Your task to perform on an android device: Open Google Chrome Image 0: 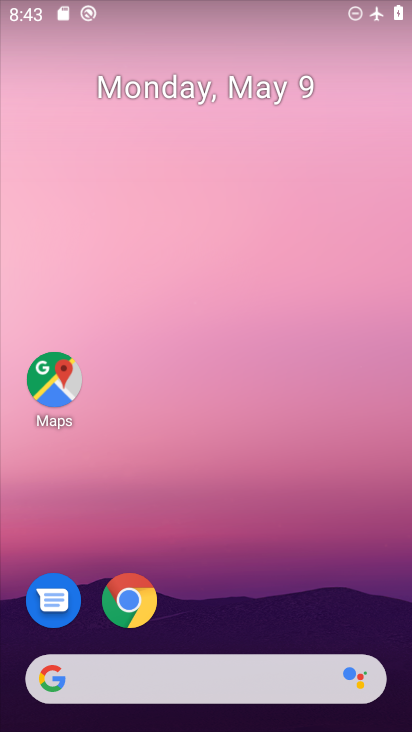
Step 0: drag from (235, 597) to (257, 6)
Your task to perform on an android device: Open Google Chrome Image 1: 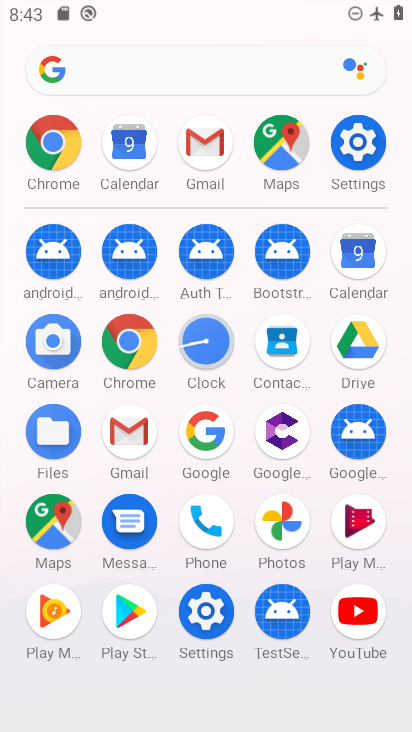
Step 1: click (48, 140)
Your task to perform on an android device: Open Google Chrome Image 2: 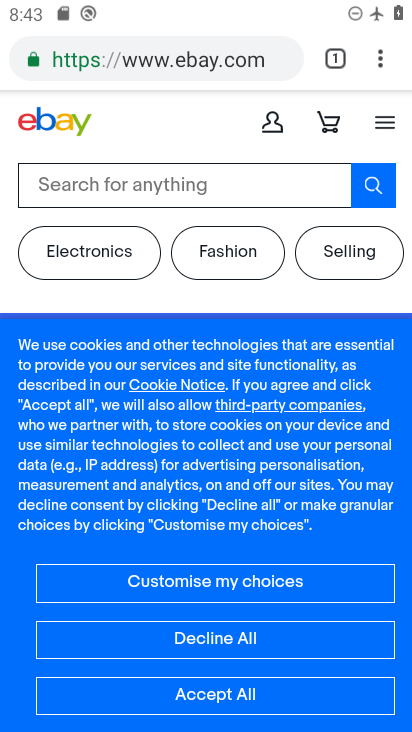
Step 2: task complete